Your task to perform on an android device: Show me popular videos on Youtube Image 0: 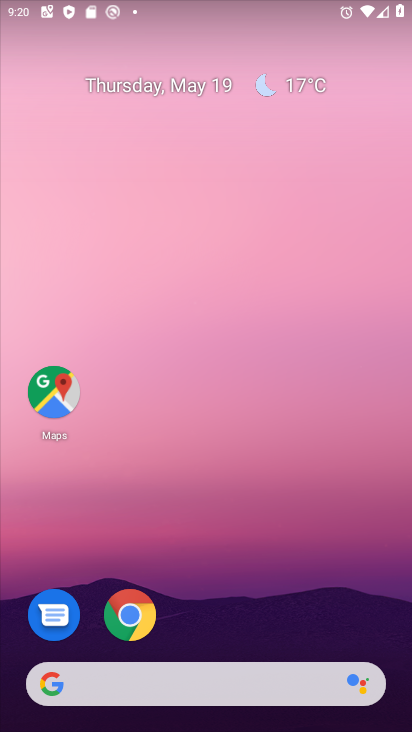
Step 0: drag from (213, 541) to (229, 192)
Your task to perform on an android device: Show me popular videos on Youtube Image 1: 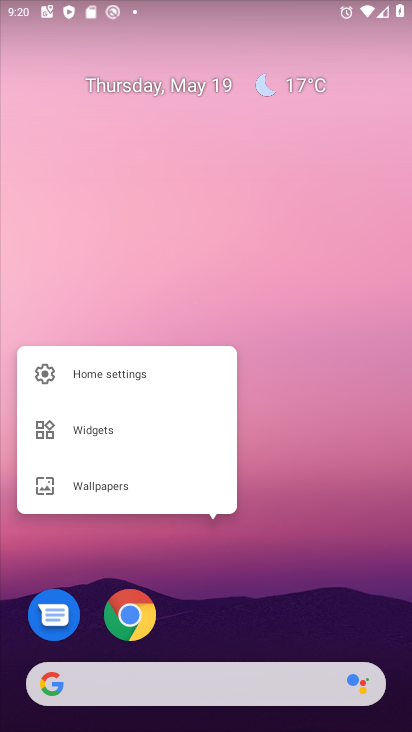
Step 1: click (274, 549)
Your task to perform on an android device: Show me popular videos on Youtube Image 2: 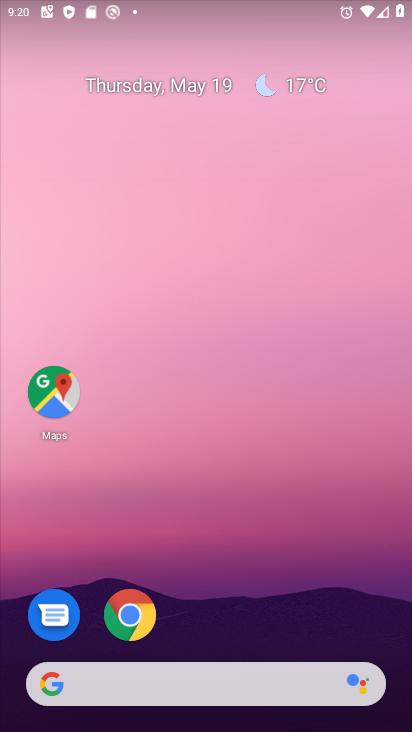
Step 2: drag from (274, 549) to (274, 222)
Your task to perform on an android device: Show me popular videos on Youtube Image 3: 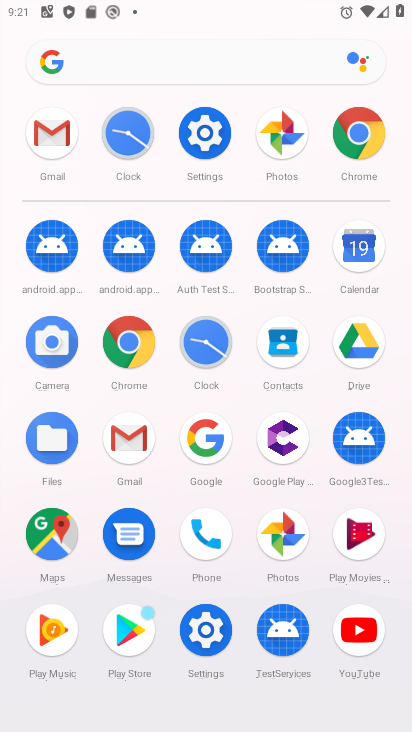
Step 3: click (366, 633)
Your task to perform on an android device: Show me popular videos on Youtube Image 4: 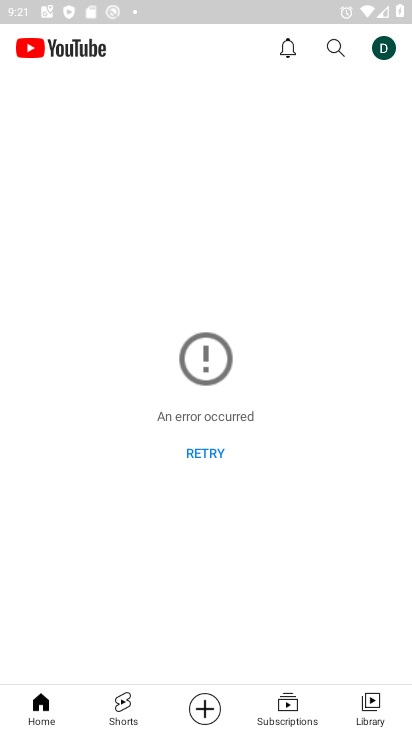
Step 4: task complete